Your task to perform on an android device: When is my next meeting? Image 0: 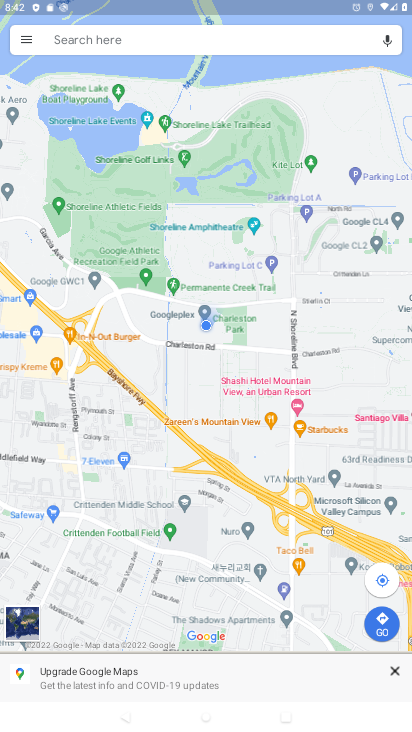
Step 0: press home button
Your task to perform on an android device: When is my next meeting? Image 1: 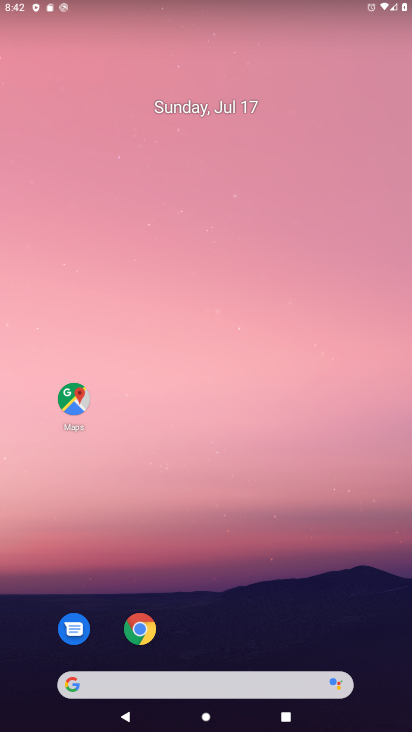
Step 1: drag from (233, 642) to (297, 32)
Your task to perform on an android device: When is my next meeting? Image 2: 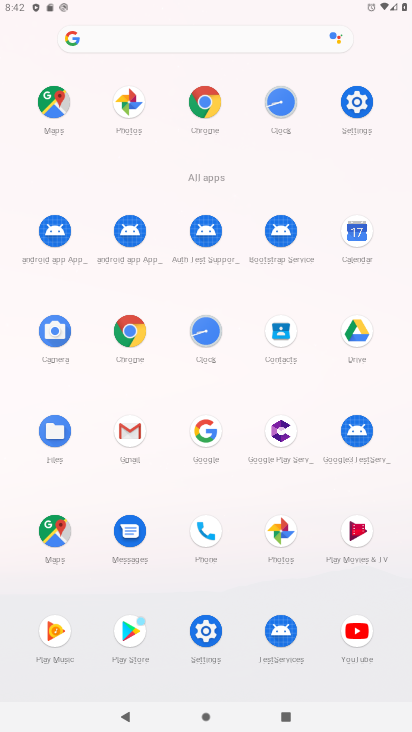
Step 2: click (358, 241)
Your task to perform on an android device: When is my next meeting? Image 3: 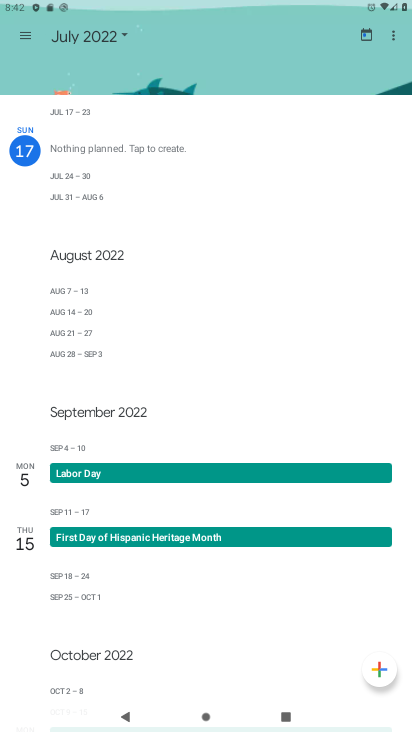
Step 3: task complete